Your task to perform on an android device: set the timer Image 0: 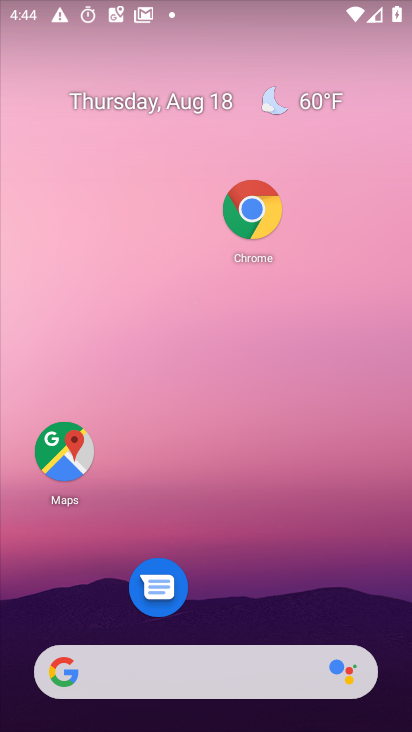
Step 0: click (331, 590)
Your task to perform on an android device: set the timer Image 1: 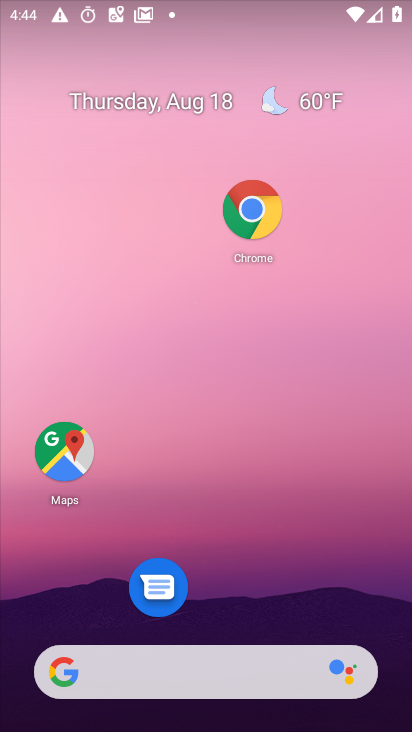
Step 1: drag from (214, 501) to (231, 0)
Your task to perform on an android device: set the timer Image 2: 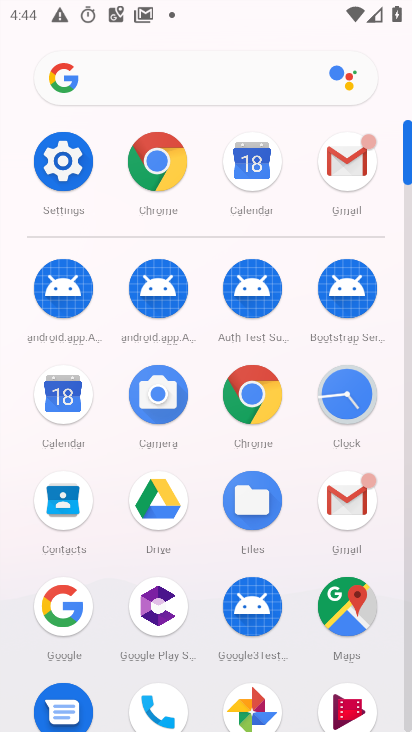
Step 2: click (340, 403)
Your task to perform on an android device: set the timer Image 3: 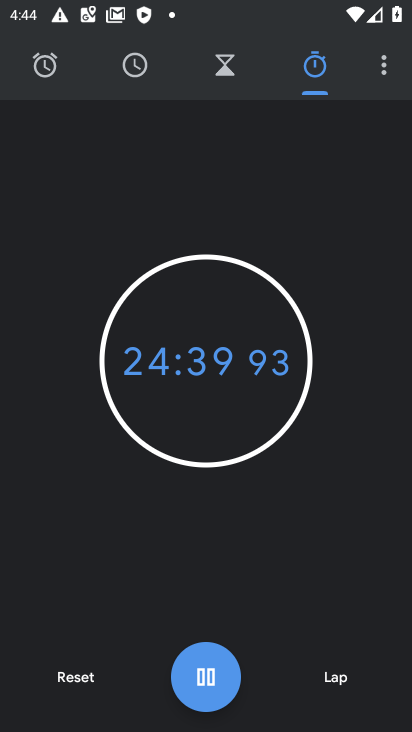
Step 3: click (210, 72)
Your task to perform on an android device: set the timer Image 4: 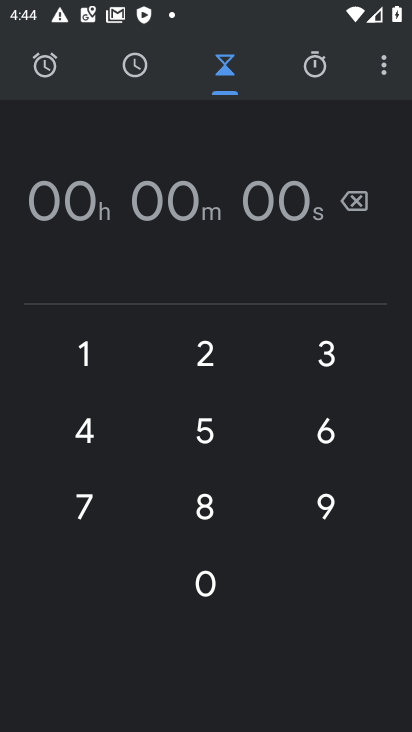
Step 4: click (87, 347)
Your task to perform on an android device: set the timer Image 5: 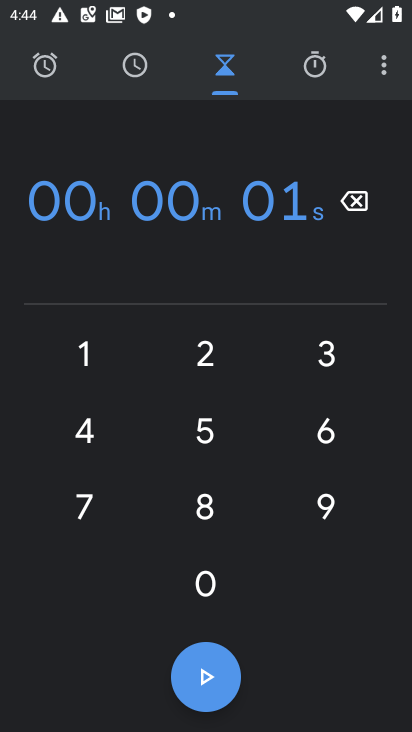
Step 5: click (87, 347)
Your task to perform on an android device: set the timer Image 6: 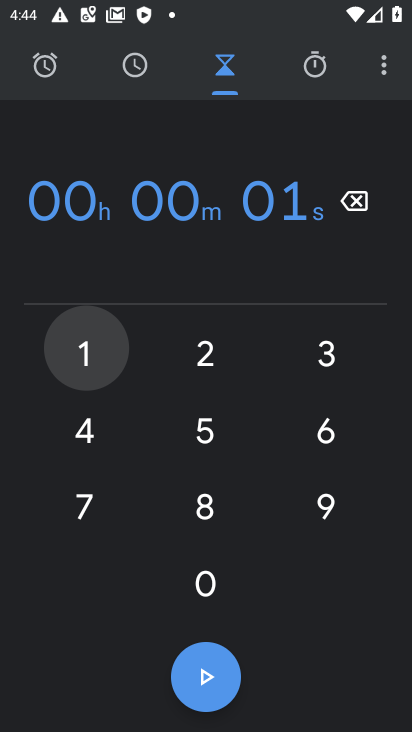
Step 6: click (87, 347)
Your task to perform on an android device: set the timer Image 7: 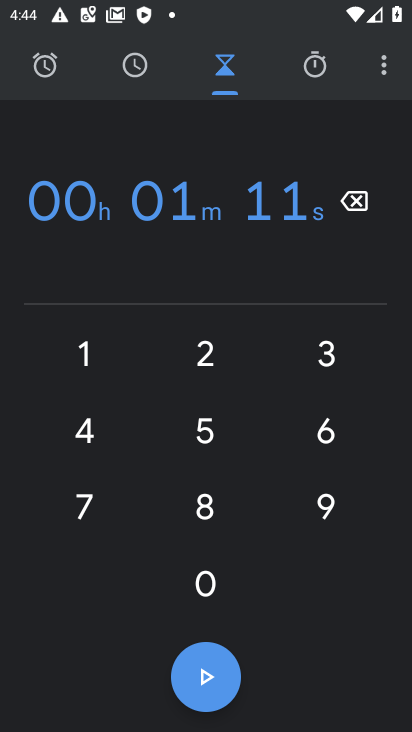
Step 7: click (87, 347)
Your task to perform on an android device: set the timer Image 8: 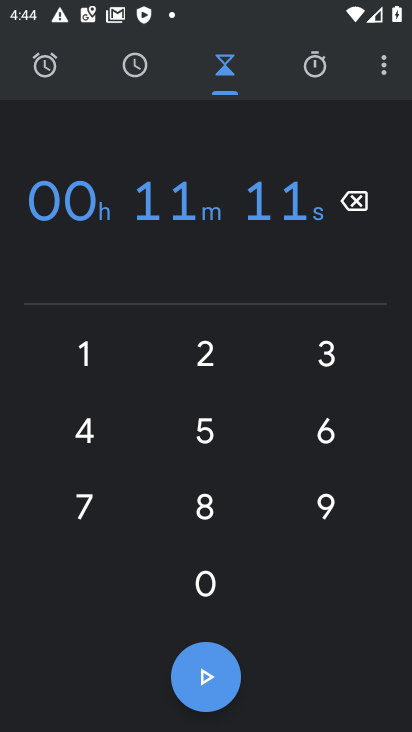
Step 8: click (80, 341)
Your task to perform on an android device: set the timer Image 9: 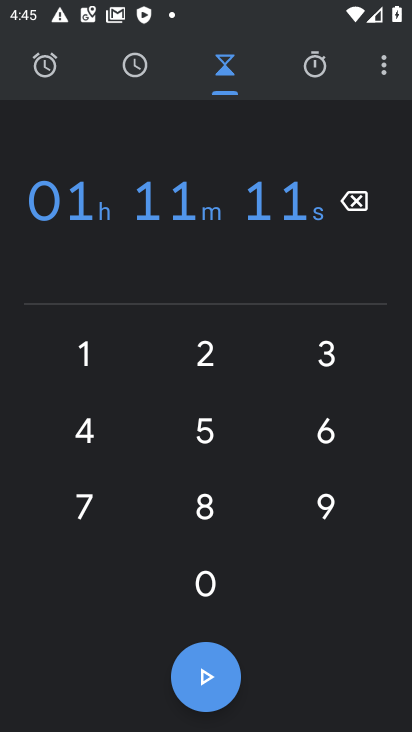
Step 9: click (213, 694)
Your task to perform on an android device: set the timer Image 10: 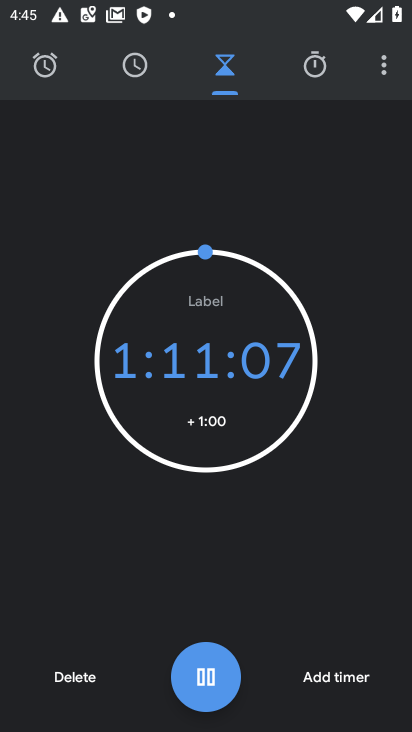
Step 10: task complete